Your task to perform on an android device: find which apps use the phone's location Image 0: 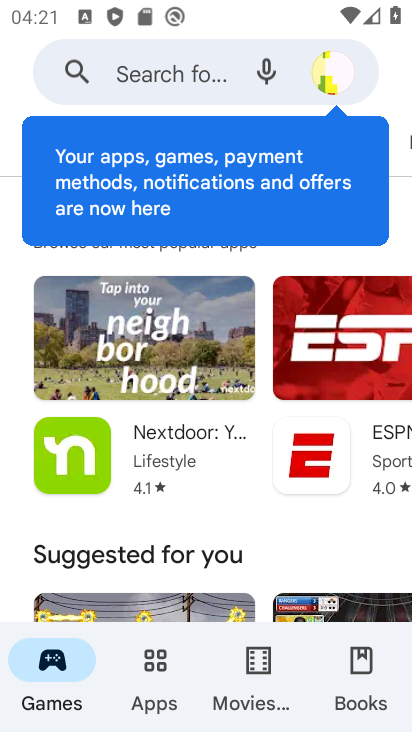
Step 0: press home button
Your task to perform on an android device: find which apps use the phone's location Image 1: 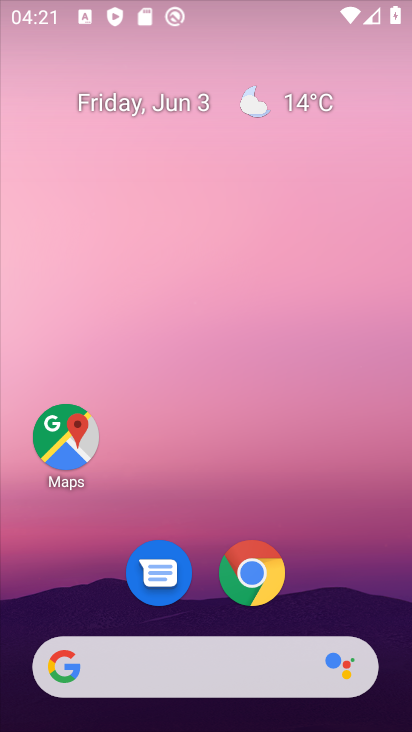
Step 1: drag from (265, 698) to (277, 117)
Your task to perform on an android device: find which apps use the phone's location Image 2: 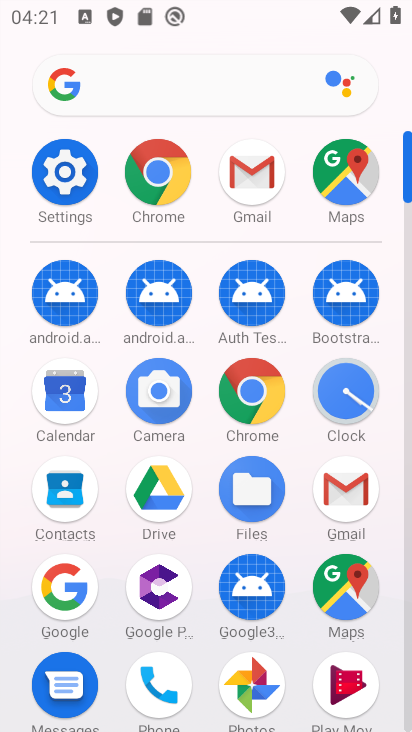
Step 2: drag from (308, 542) to (330, 232)
Your task to perform on an android device: find which apps use the phone's location Image 3: 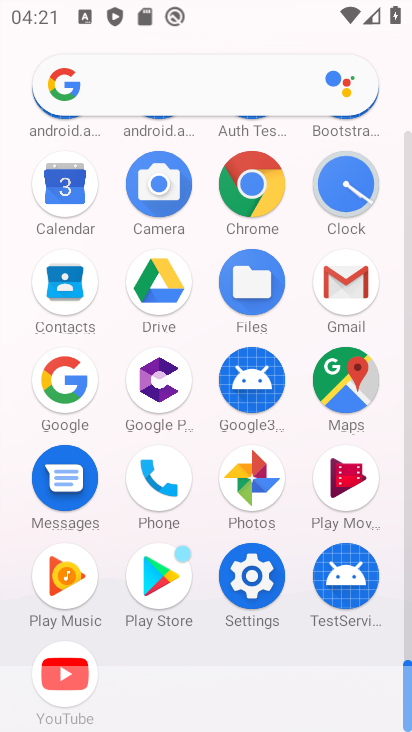
Step 3: click (243, 584)
Your task to perform on an android device: find which apps use the phone's location Image 4: 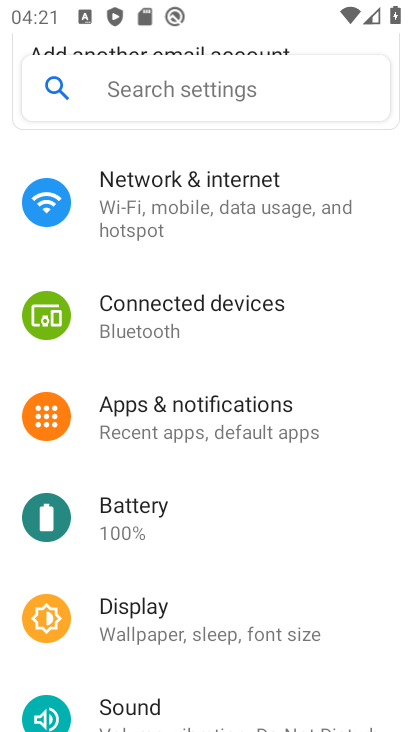
Step 4: drag from (176, 602) to (257, 63)
Your task to perform on an android device: find which apps use the phone's location Image 5: 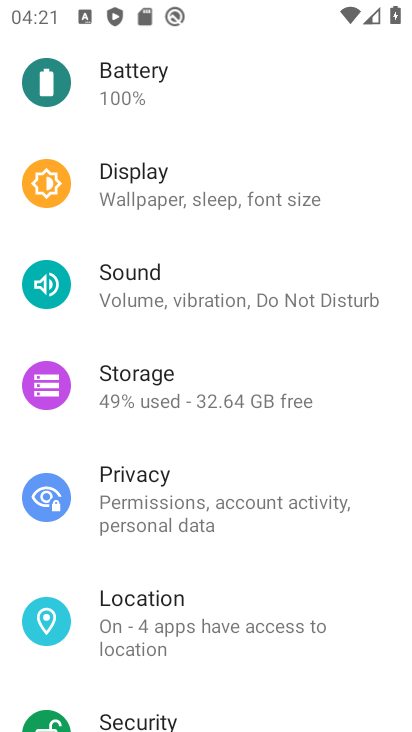
Step 5: click (188, 599)
Your task to perform on an android device: find which apps use the phone's location Image 6: 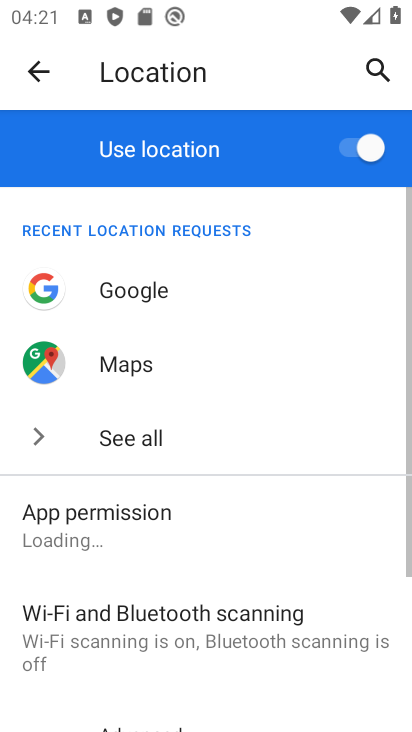
Step 6: click (163, 512)
Your task to perform on an android device: find which apps use the phone's location Image 7: 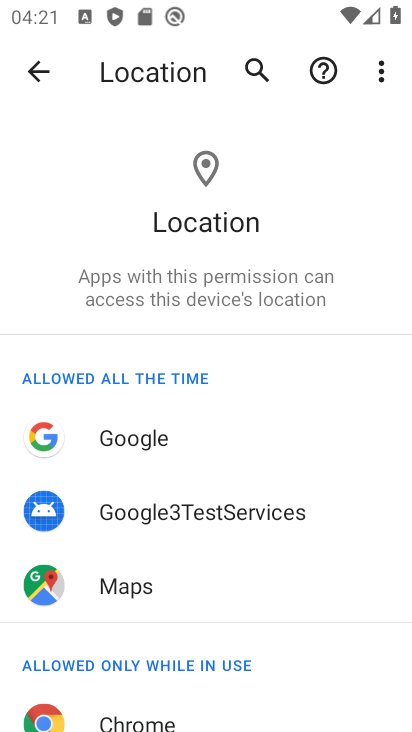
Step 7: task complete